Your task to perform on an android device: turn notification dots on Image 0: 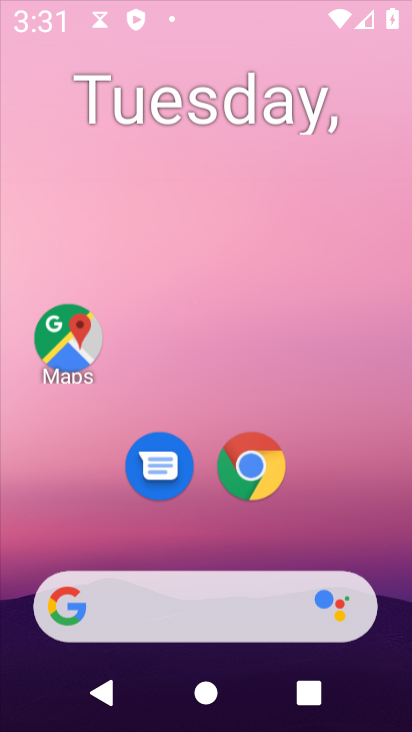
Step 0: click (266, 0)
Your task to perform on an android device: turn notification dots on Image 1: 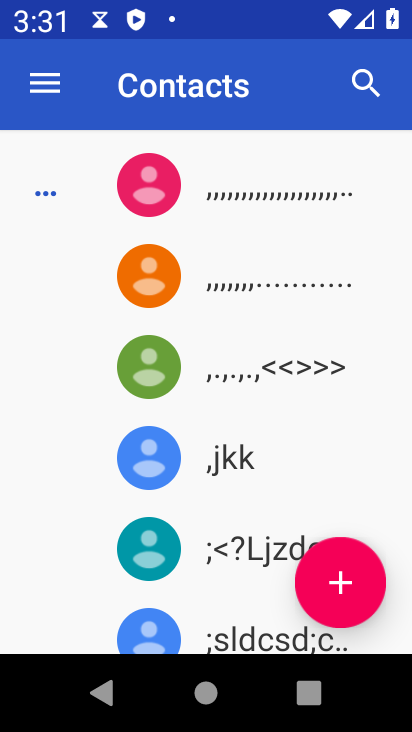
Step 1: press back button
Your task to perform on an android device: turn notification dots on Image 2: 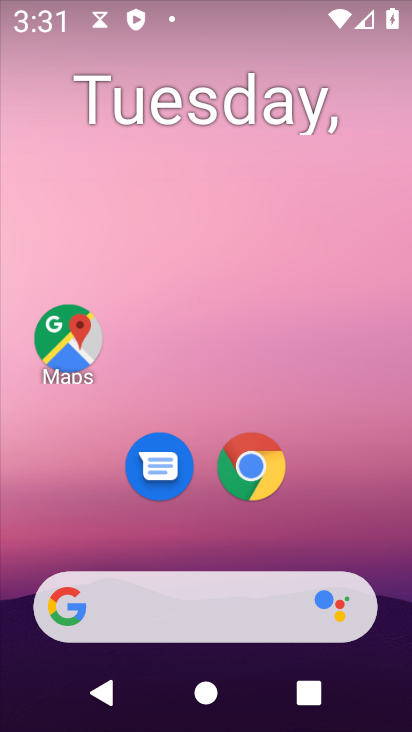
Step 2: drag from (369, 466) to (183, 2)
Your task to perform on an android device: turn notification dots on Image 3: 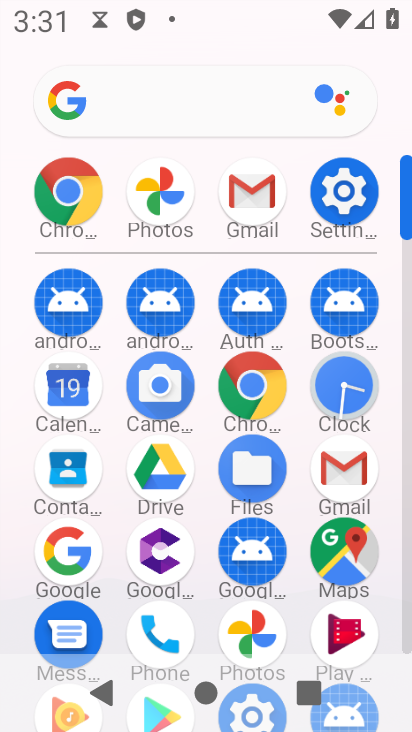
Step 3: drag from (11, 486) to (4, 224)
Your task to perform on an android device: turn notification dots on Image 4: 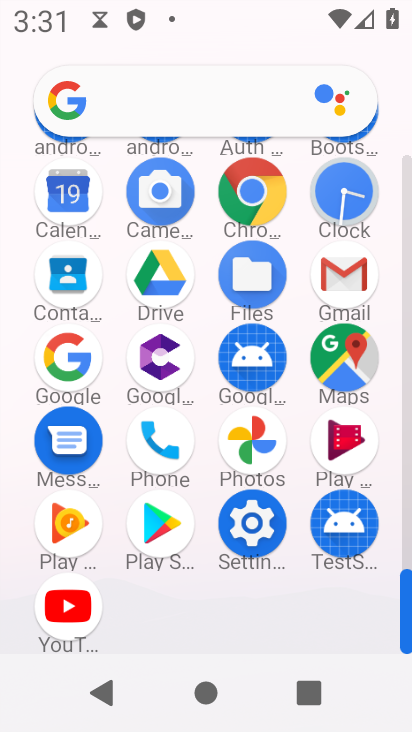
Step 4: drag from (16, 250) to (13, 510)
Your task to perform on an android device: turn notification dots on Image 5: 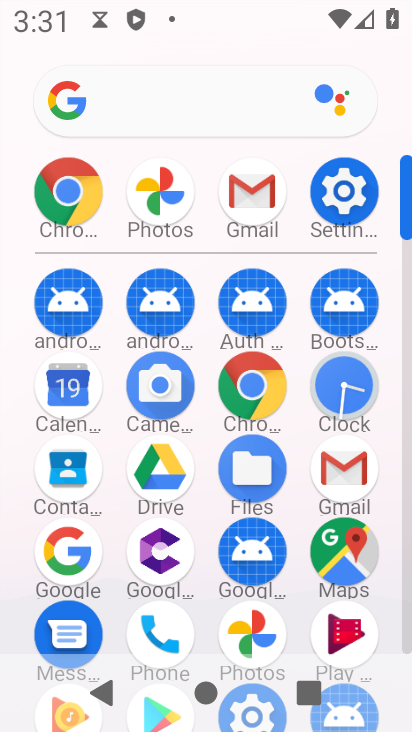
Step 5: click (339, 181)
Your task to perform on an android device: turn notification dots on Image 6: 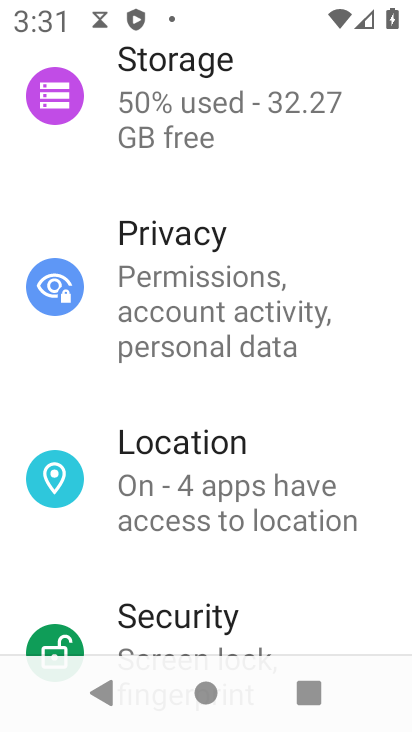
Step 6: drag from (289, 202) to (285, 516)
Your task to perform on an android device: turn notification dots on Image 7: 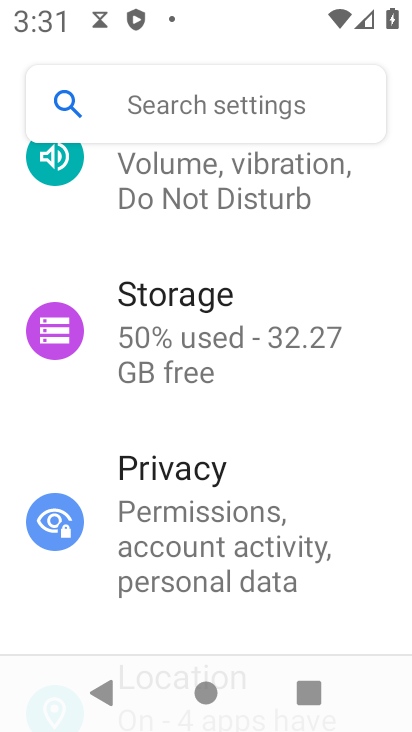
Step 7: drag from (294, 197) to (286, 549)
Your task to perform on an android device: turn notification dots on Image 8: 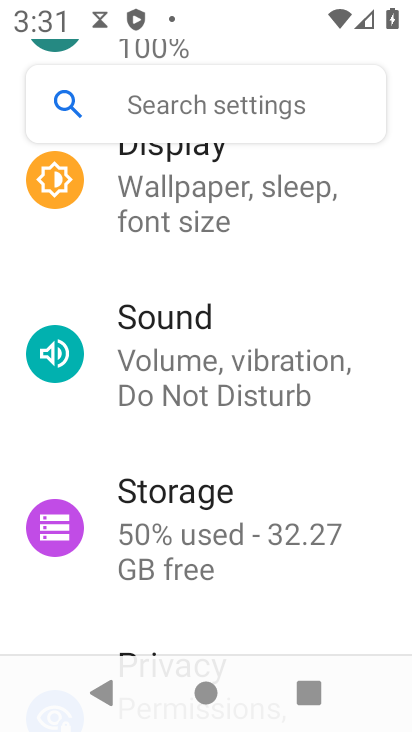
Step 8: drag from (303, 373) to (298, 537)
Your task to perform on an android device: turn notification dots on Image 9: 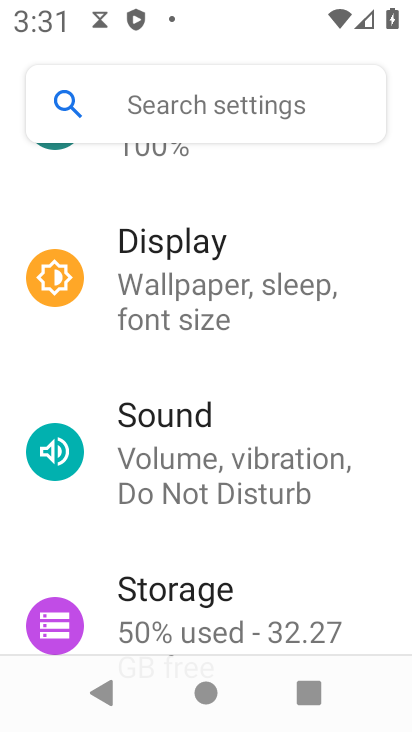
Step 9: drag from (286, 243) to (275, 552)
Your task to perform on an android device: turn notification dots on Image 10: 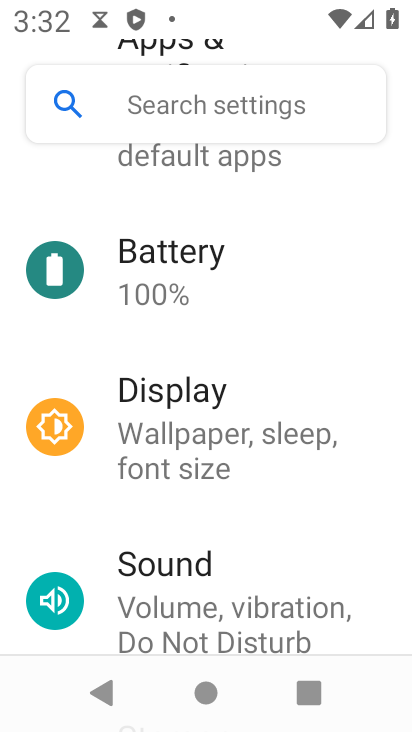
Step 10: drag from (269, 227) to (273, 532)
Your task to perform on an android device: turn notification dots on Image 11: 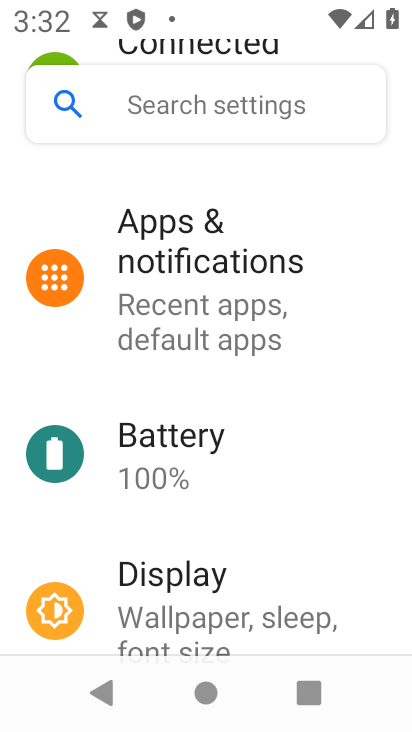
Step 11: click (249, 243)
Your task to perform on an android device: turn notification dots on Image 12: 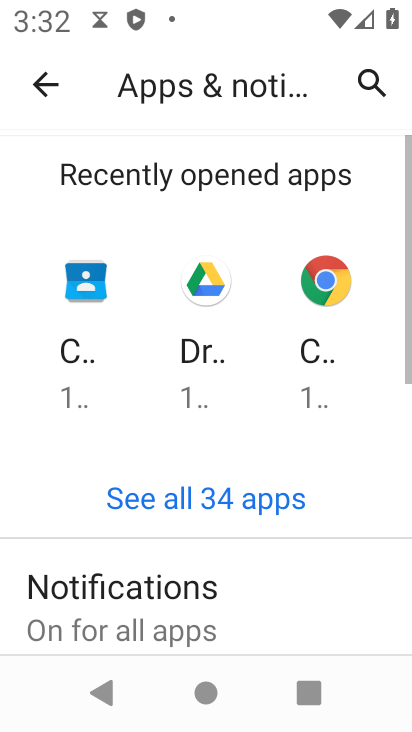
Step 12: click (227, 612)
Your task to perform on an android device: turn notification dots on Image 13: 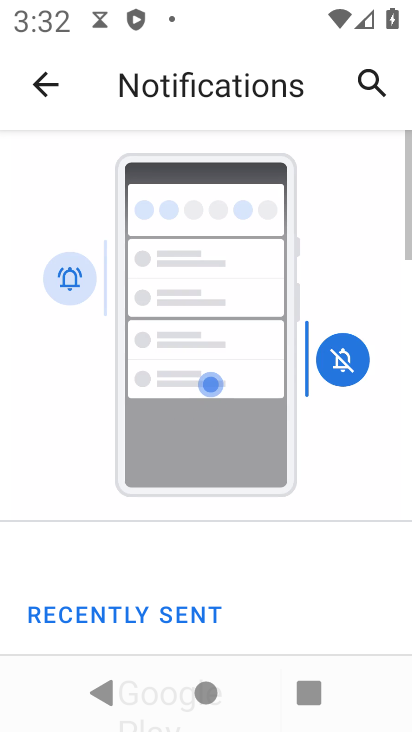
Step 13: drag from (243, 600) to (251, 112)
Your task to perform on an android device: turn notification dots on Image 14: 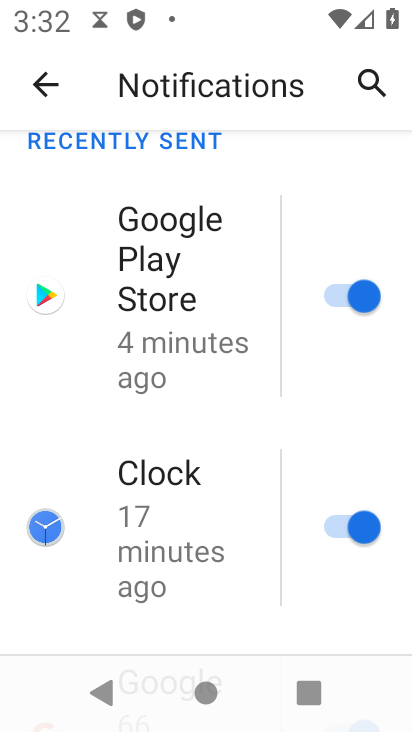
Step 14: drag from (231, 517) to (223, 154)
Your task to perform on an android device: turn notification dots on Image 15: 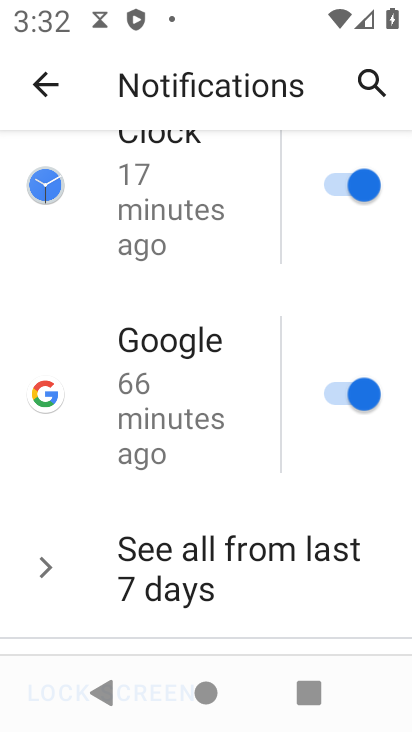
Step 15: drag from (227, 528) to (229, 158)
Your task to perform on an android device: turn notification dots on Image 16: 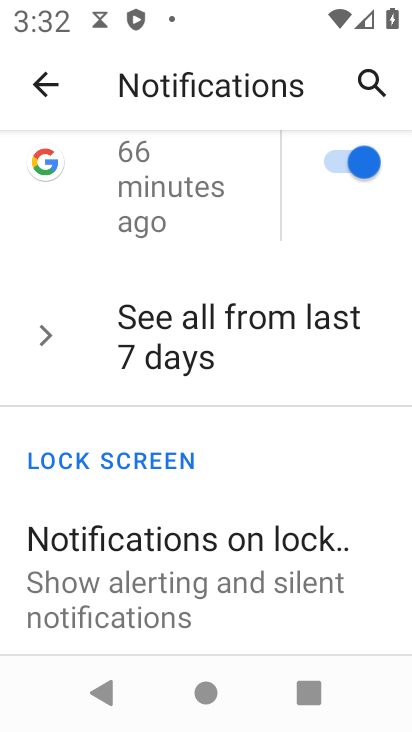
Step 16: drag from (225, 566) to (213, 158)
Your task to perform on an android device: turn notification dots on Image 17: 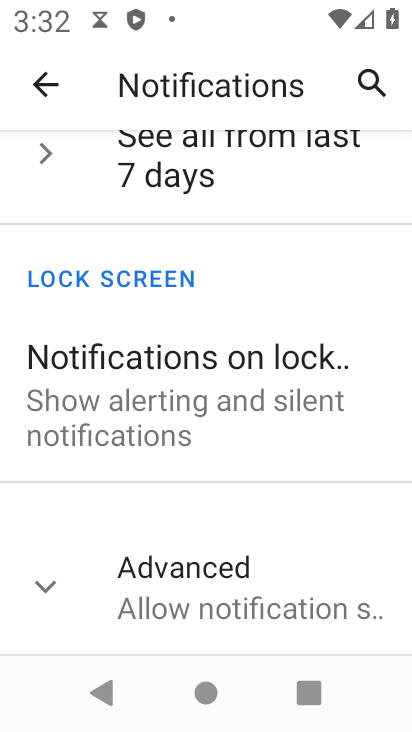
Step 17: click (214, 637)
Your task to perform on an android device: turn notification dots on Image 18: 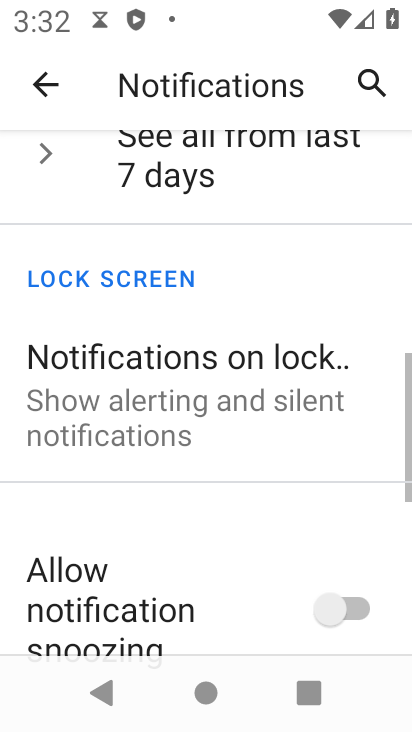
Step 18: drag from (214, 632) to (226, 175)
Your task to perform on an android device: turn notification dots on Image 19: 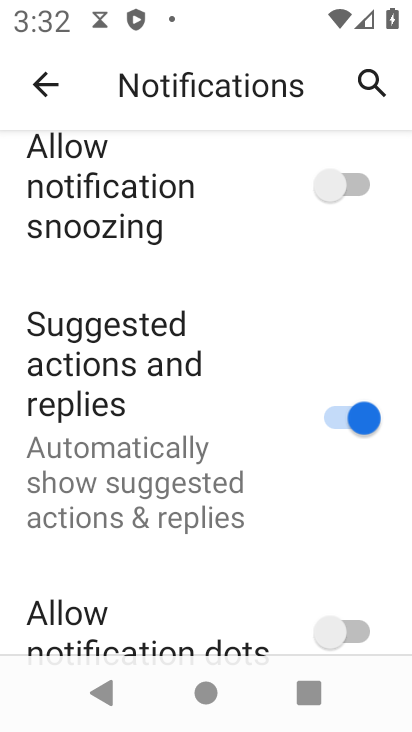
Step 19: click (346, 639)
Your task to perform on an android device: turn notification dots on Image 20: 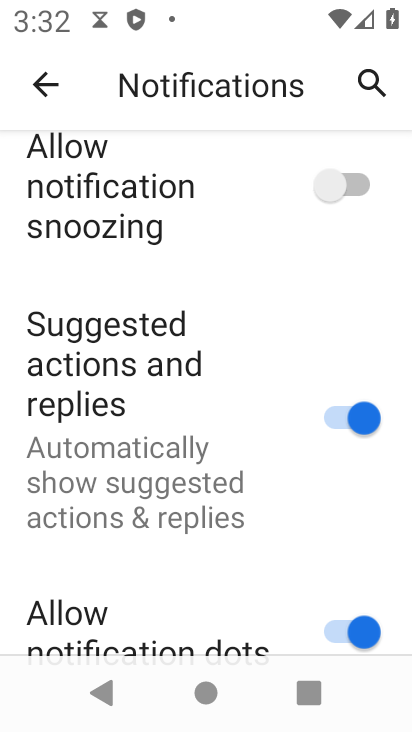
Step 20: task complete